Your task to perform on an android device: What's the weather today? Image 0: 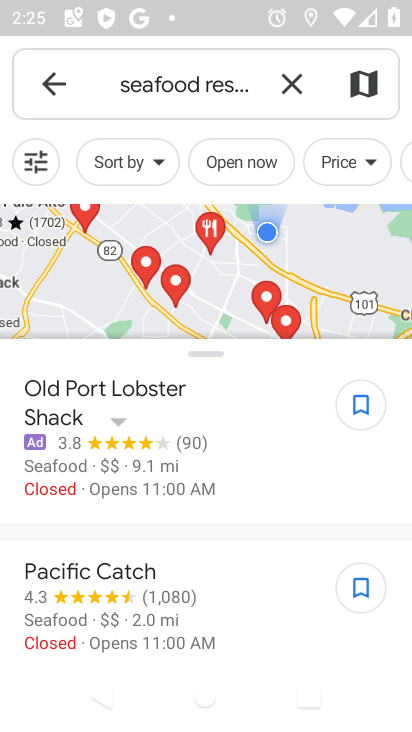
Step 0: press home button
Your task to perform on an android device: What's the weather today? Image 1: 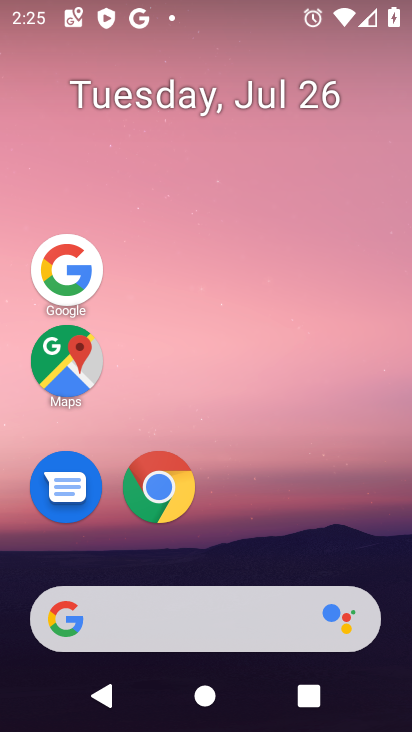
Step 1: drag from (195, 646) to (170, 198)
Your task to perform on an android device: What's the weather today? Image 2: 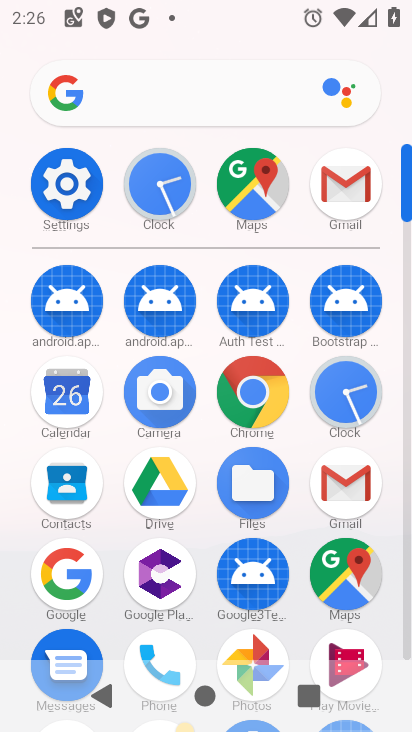
Step 2: click (78, 583)
Your task to perform on an android device: What's the weather today? Image 3: 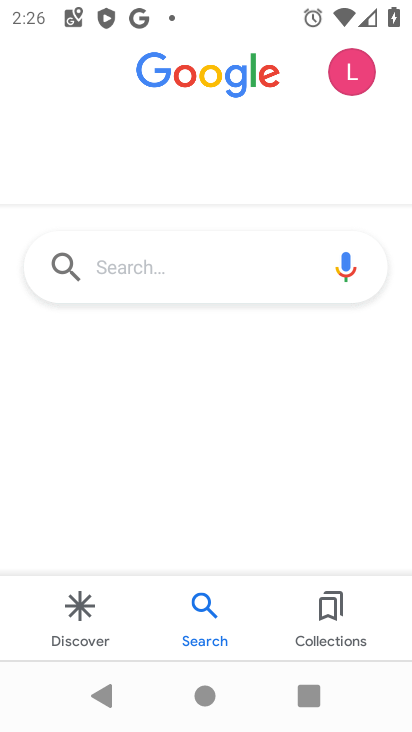
Step 3: click (213, 269)
Your task to perform on an android device: What's the weather today? Image 4: 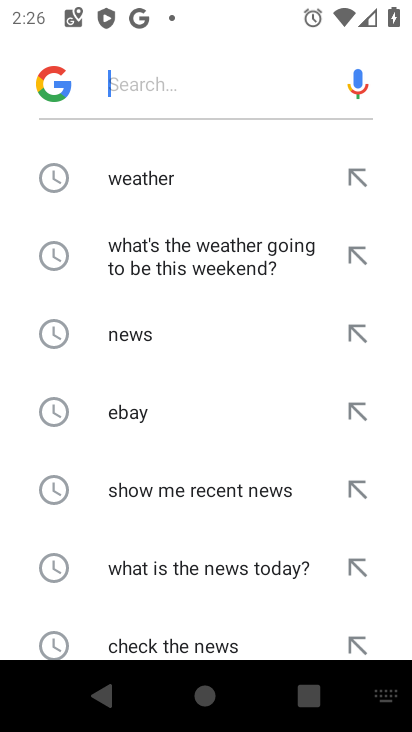
Step 4: click (187, 176)
Your task to perform on an android device: What's the weather today? Image 5: 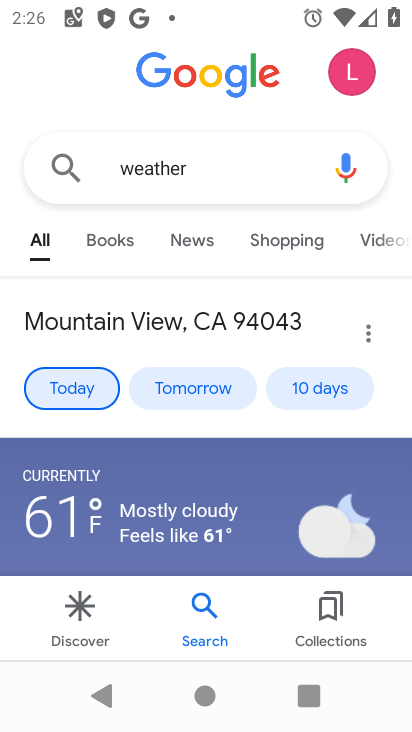
Step 5: task complete